Your task to perform on an android device: Open Amazon Image 0: 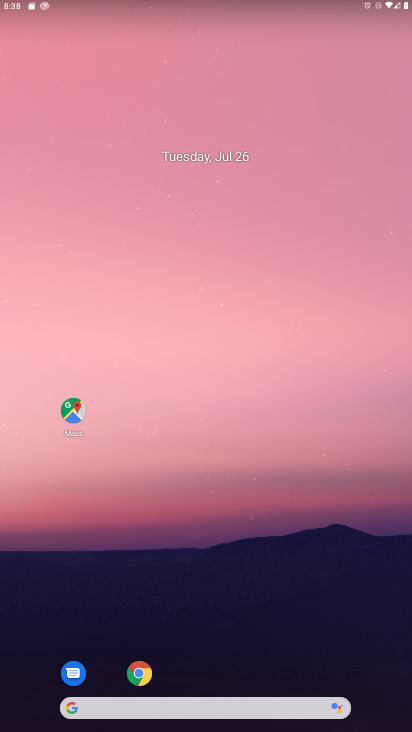
Step 0: drag from (389, 691) to (220, 12)
Your task to perform on an android device: Open Amazon Image 1: 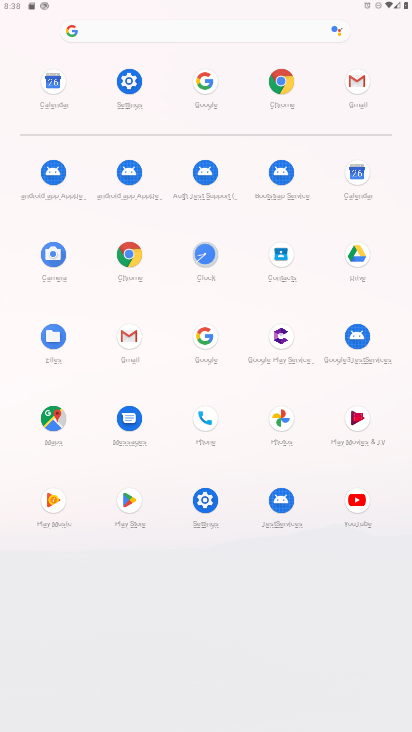
Step 1: click (208, 339)
Your task to perform on an android device: Open Amazon Image 2: 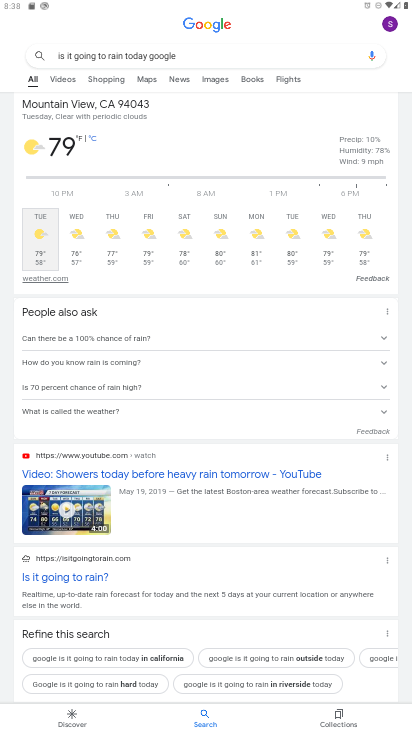
Step 2: press back button
Your task to perform on an android device: Open Amazon Image 3: 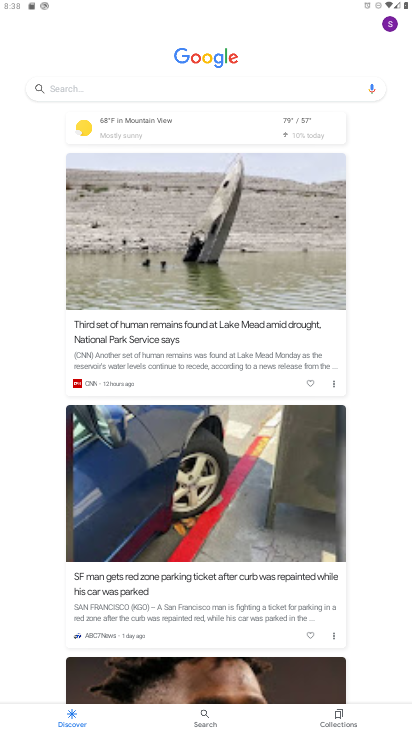
Step 3: click (89, 95)
Your task to perform on an android device: Open Amazon Image 4: 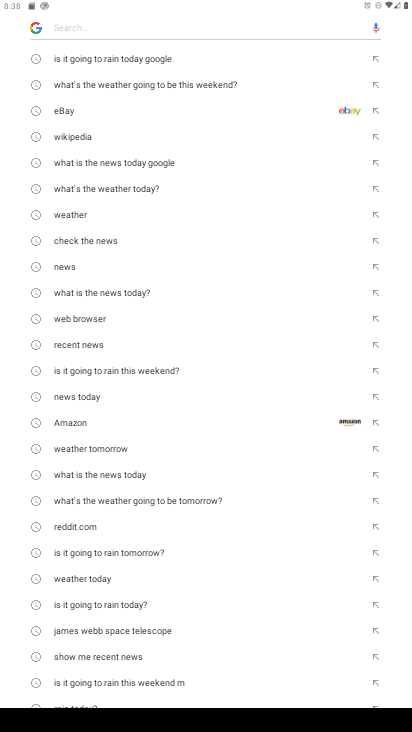
Step 4: click (78, 412)
Your task to perform on an android device: Open Amazon Image 5: 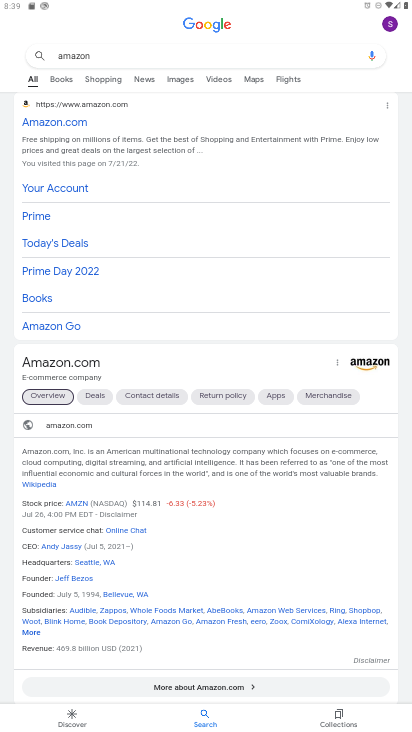
Step 5: task complete